Your task to perform on an android device: Go to Android settings Image 0: 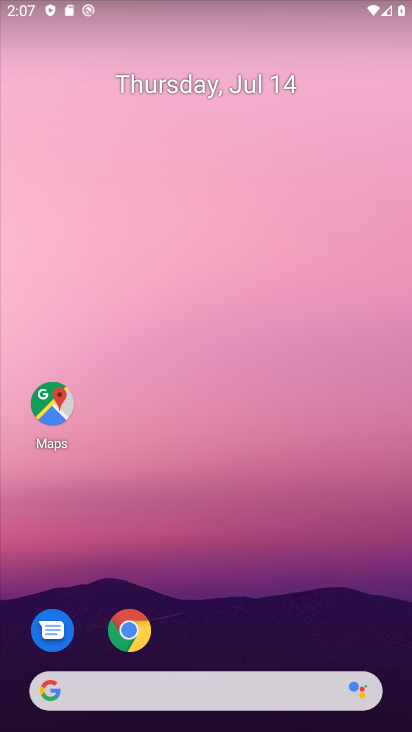
Step 0: drag from (210, 113) to (216, 57)
Your task to perform on an android device: Go to Android settings Image 1: 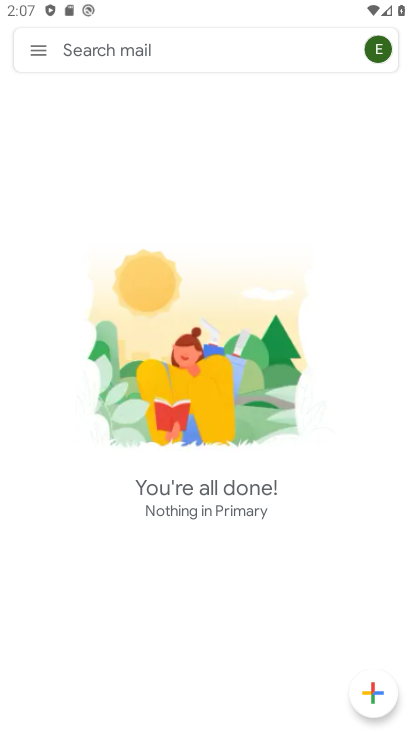
Step 1: press home button
Your task to perform on an android device: Go to Android settings Image 2: 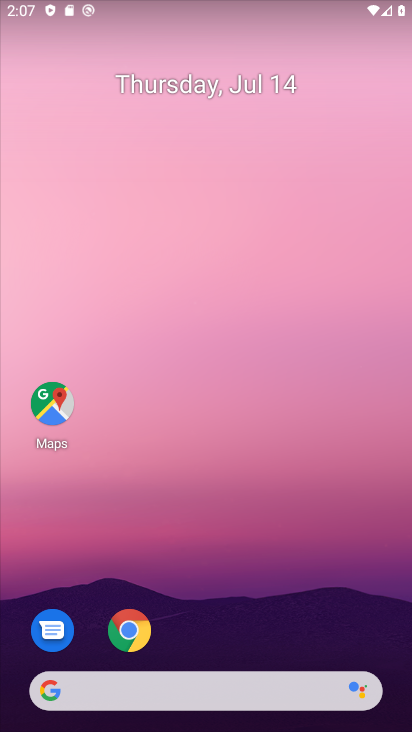
Step 2: drag from (211, 643) to (202, 38)
Your task to perform on an android device: Go to Android settings Image 3: 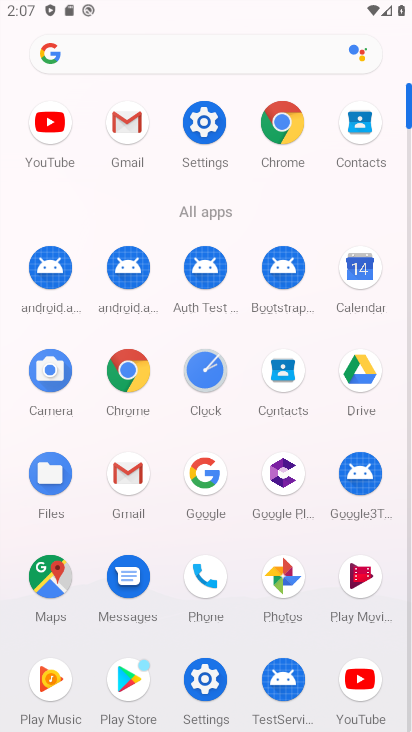
Step 3: click (199, 119)
Your task to perform on an android device: Go to Android settings Image 4: 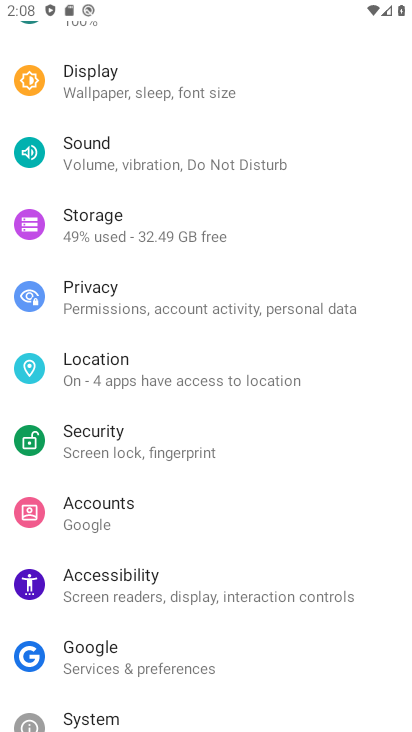
Step 4: drag from (174, 647) to (230, 105)
Your task to perform on an android device: Go to Android settings Image 5: 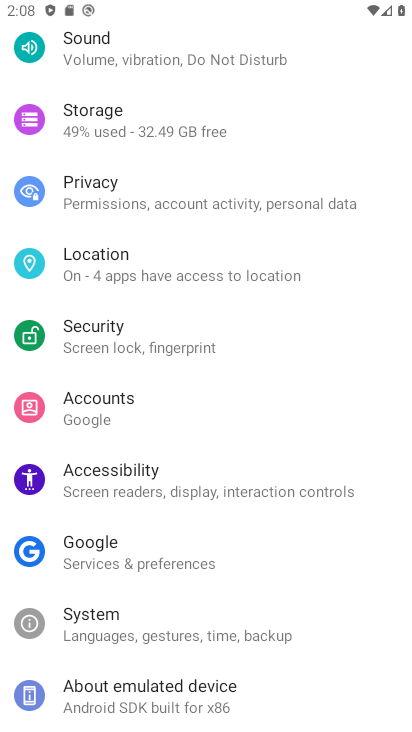
Step 5: click (194, 700)
Your task to perform on an android device: Go to Android settings Image 6: 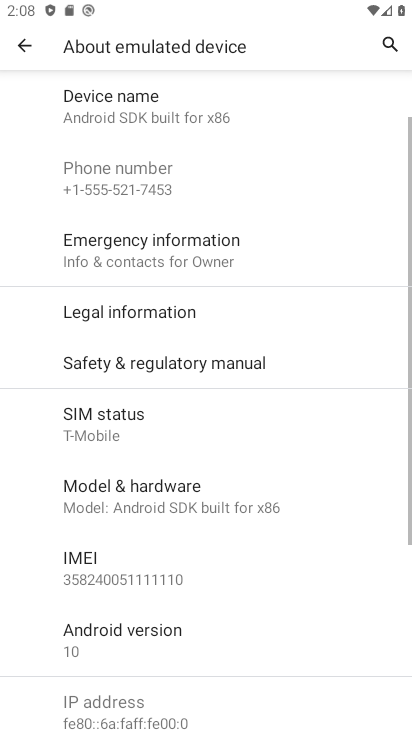
Step 6: click (139, 644)
Your task to perform on an android device: Go to Android settings Image 7: 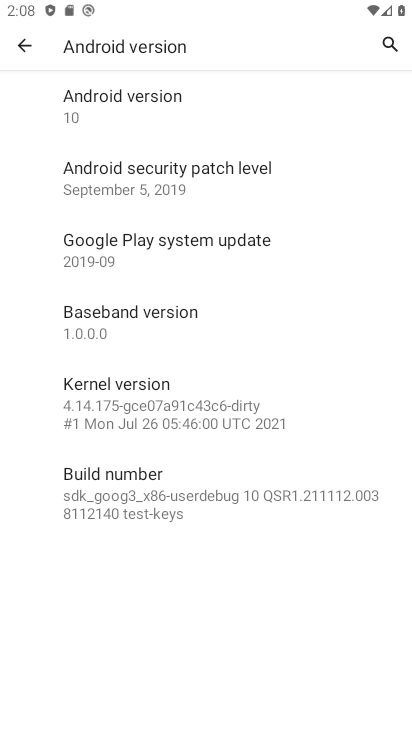
Step 7: task complete